Your task to perform on an android device: toggle location history Image 0: 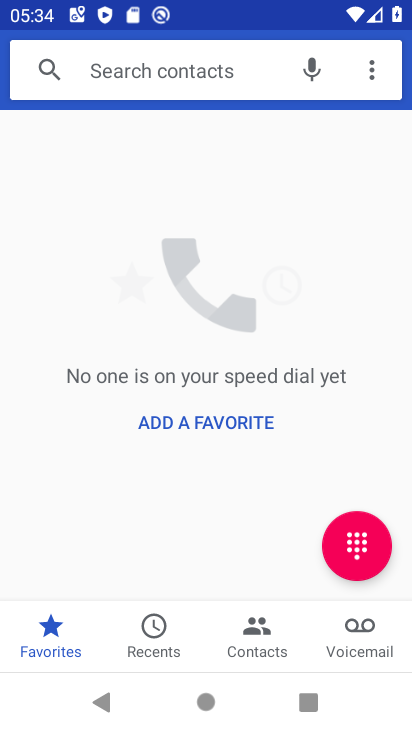
Step 0: press home button
Your task to perform on an android device: toggle location history Image 1: 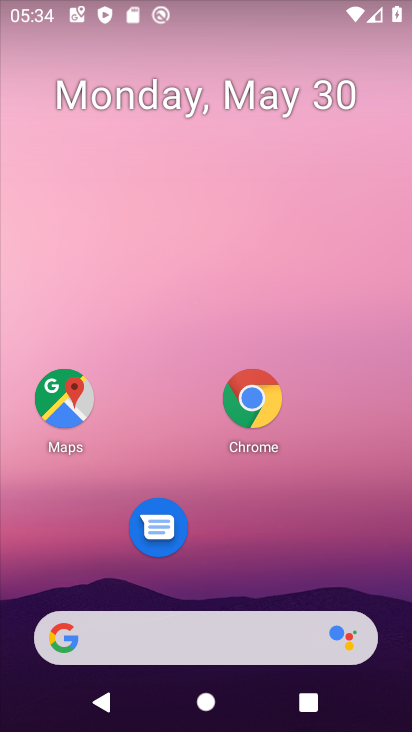
Step 1: drag from (233, 724) to (234, 0)
Your task to perform on an android device: toggle location history Image 2: 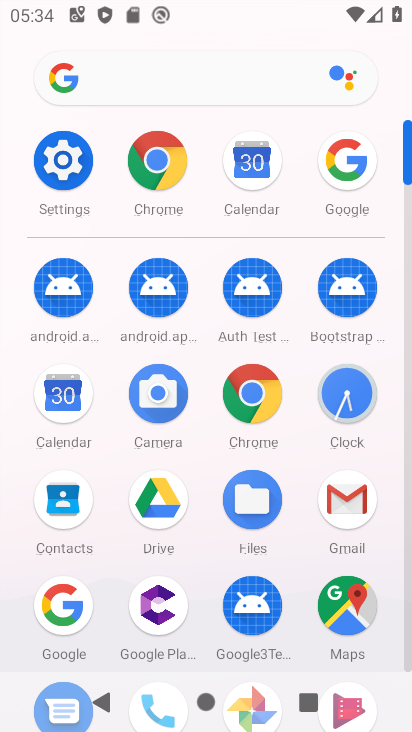
Step 2: click (57, 167)
Your task to perform on an android device: toggle location history Image 3: 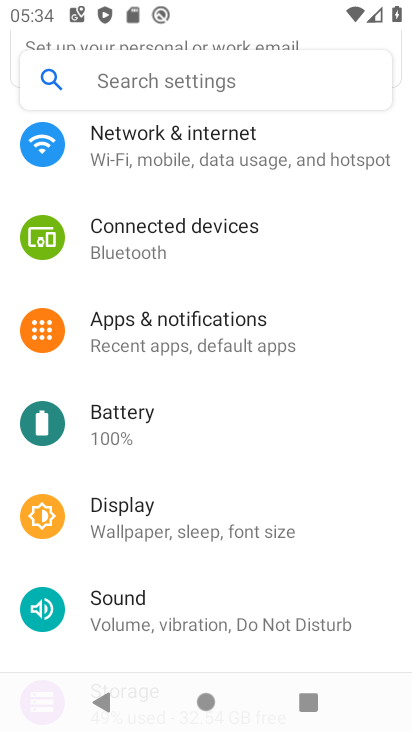
Step 3: drag from (168, 585) to (182, 151)
Your task to perform on an android device: toggle location history Image 4: 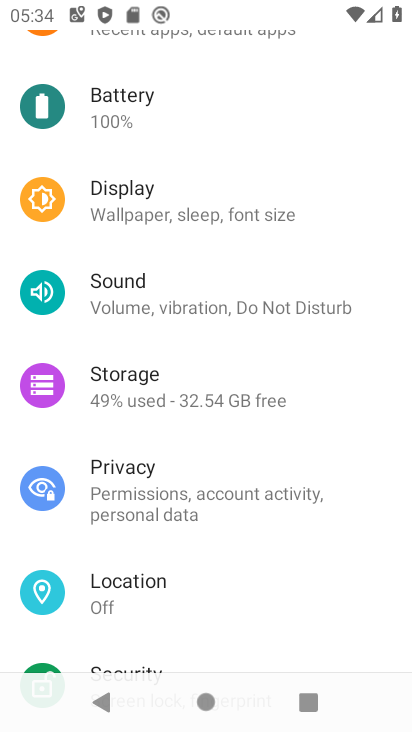
Step 4: click (132, 584)
Your task to perform on an android device: toggle location history Image 5: 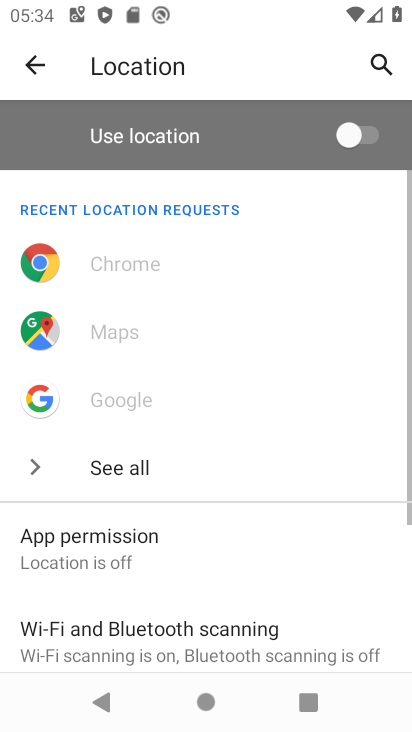
Step 5: drag from (182, 490) to (182, 282)
Your task to perform on an android device: toggle location history Image 6: 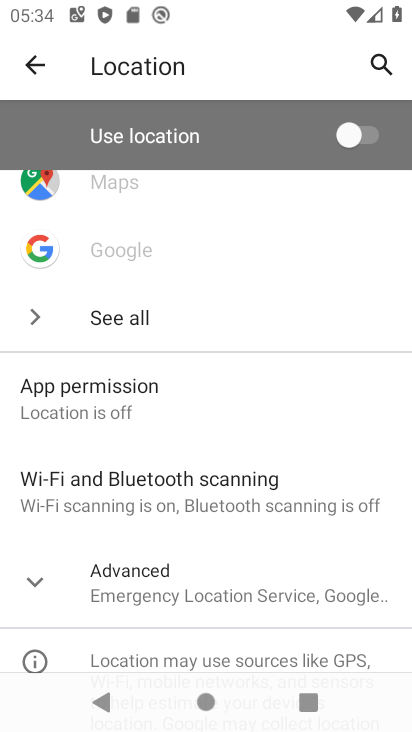
Step 6: click (173, 603)
Your task to perform on an android device: toggle location history Image 7: 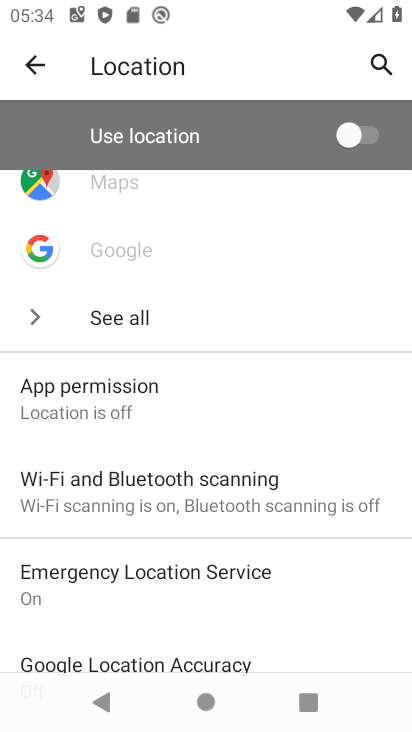
Step 7: drag from (293, 644) to (297, 340)
Your task to perform on an android device: toggle location history Image 8: 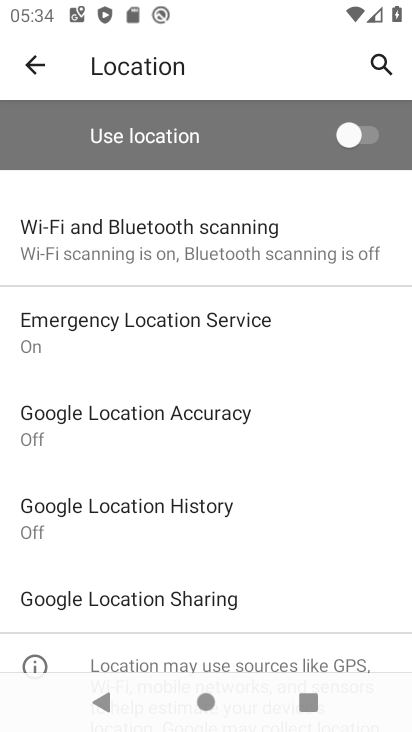
Step 8: click (141, 495)
Your task to perform on an android device: toggle location history Image 9: 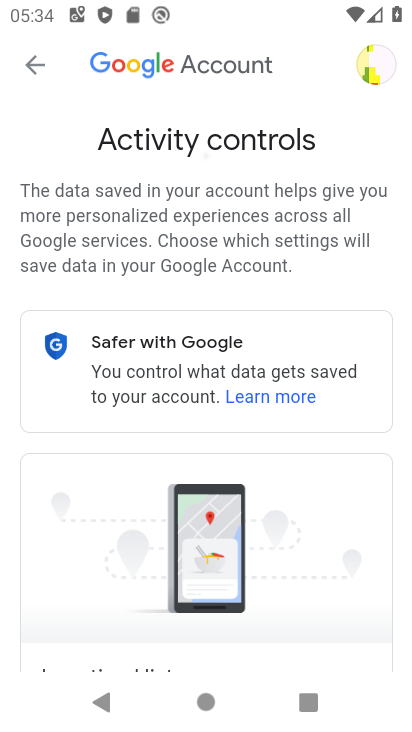
Step 9: drag from (278, 555) to (289, 173)
Your task to perform on an android device: toggle location history Image 10: 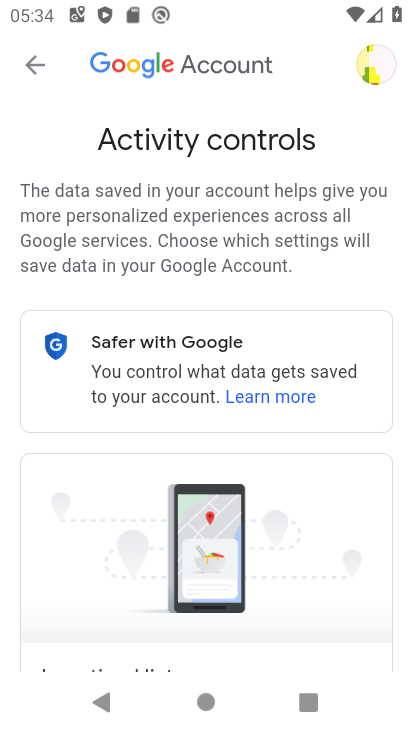
Step 10: drag from (251, 611) to (266, 259)
Your task to perform on an android device: toggle location history Image 11: 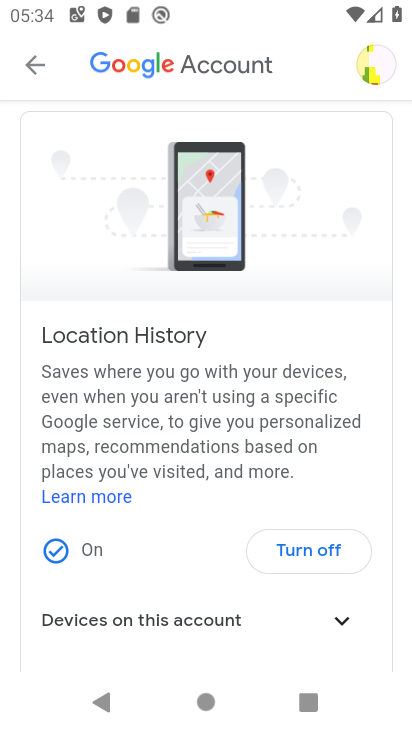
Step 11: click (311, 549)
Your task to perform on an android device: toggle location history Image 12: 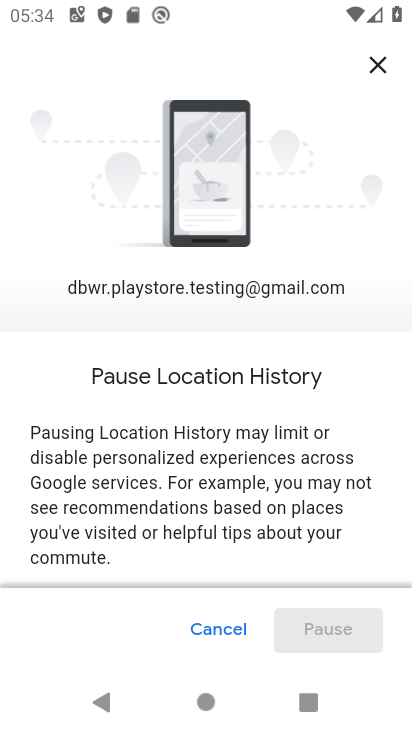
Step 12: drag from (244, 555) to (234, 186)
Your task to perform on an android device: toggle location history Image 13: 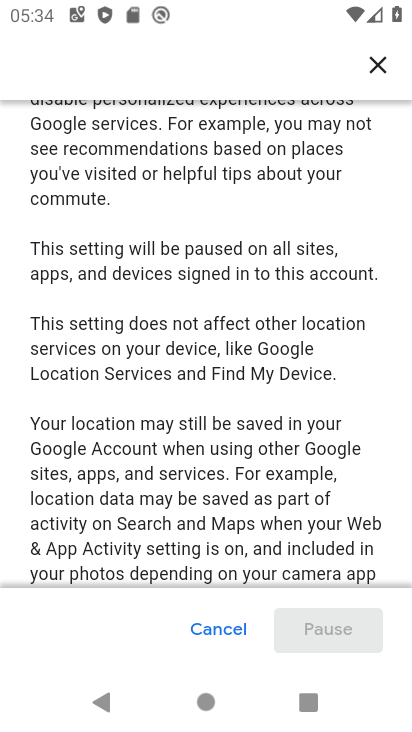
Step 13: drag from (260, 521) to (260, 234)
Your task to perform on an android device: toggle location history Image 14: 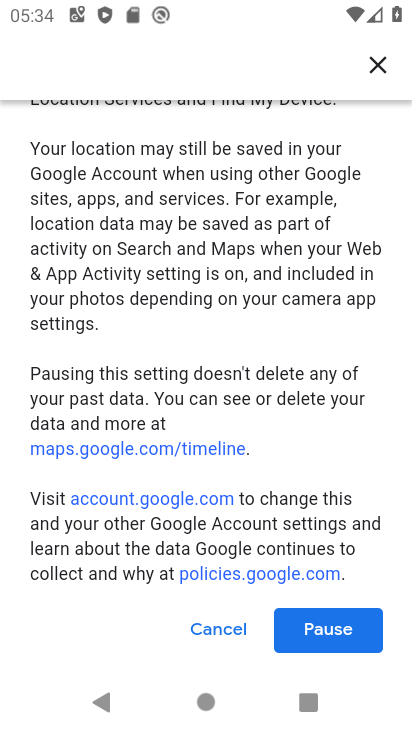
Step 14: click (323, 629)
Your task to perform on an android device: toggle location history Image 15: 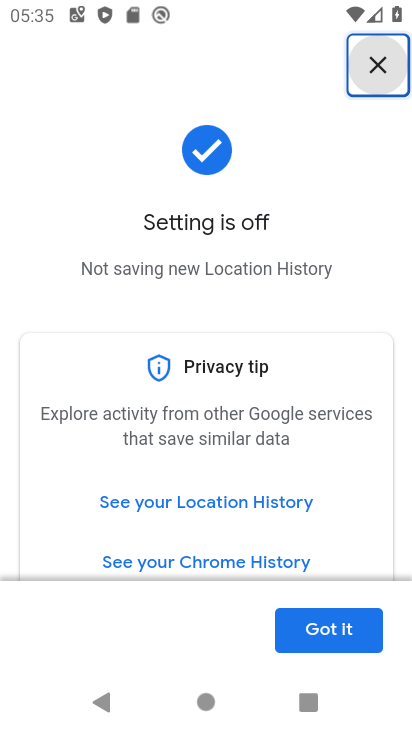
Step 15: task complete